Your task to perform on an android device: toggle priority inbox in the gmail app Image 0: 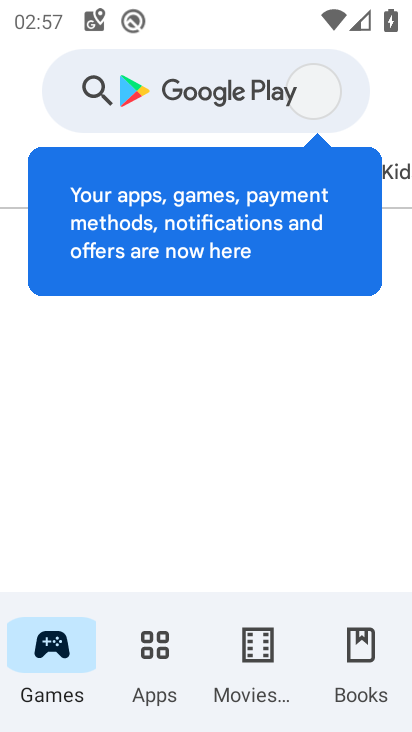
Step 0: press home button
Your task to perform on an android device: toggle priority inbox in the gmail app Image 1: 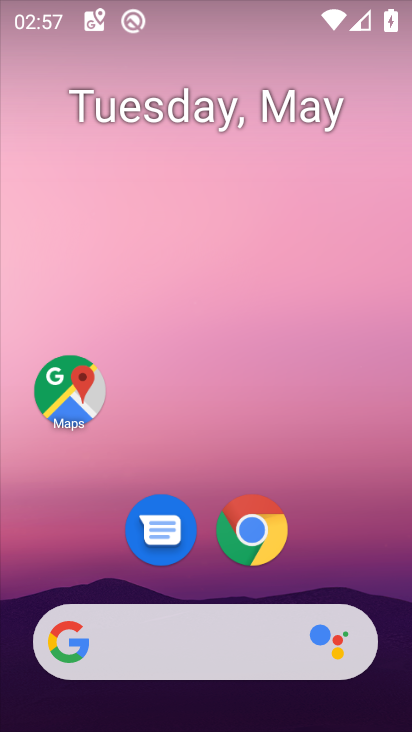
Step 1: drag from (96, 508) to (315, 161)
Your task to perform on an android device: toggle priority inbox in the gmail app Image 2: 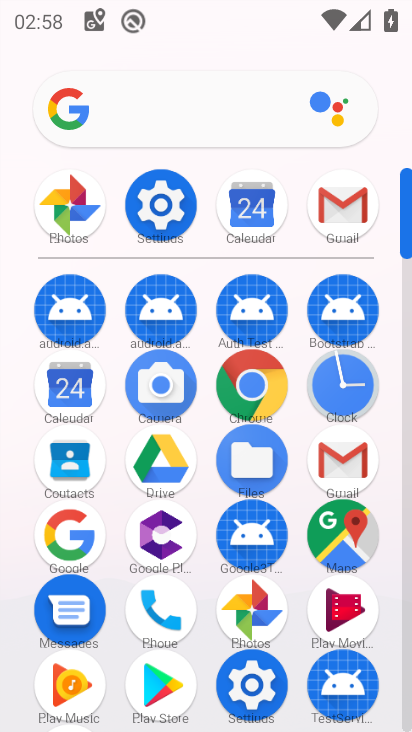
Step 2: click (301, 443)
Your task to perform on an android device: toggle priority inbox in the gmail app Image 3: 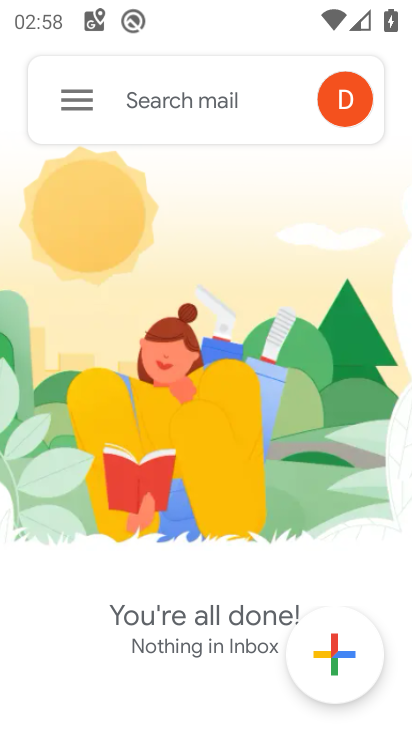
Step 3: click (51, 113)
Your task to perform on an android device: toggle priority inbox in the gmail app Image 4: 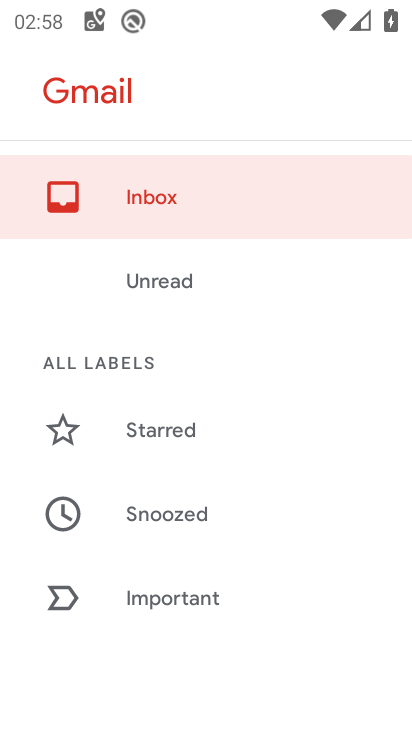
Step 4: drag from (38, 642) to (254, 134)
Your task to perform on an android device: toggle priority inbox in the gmail app Image 5: 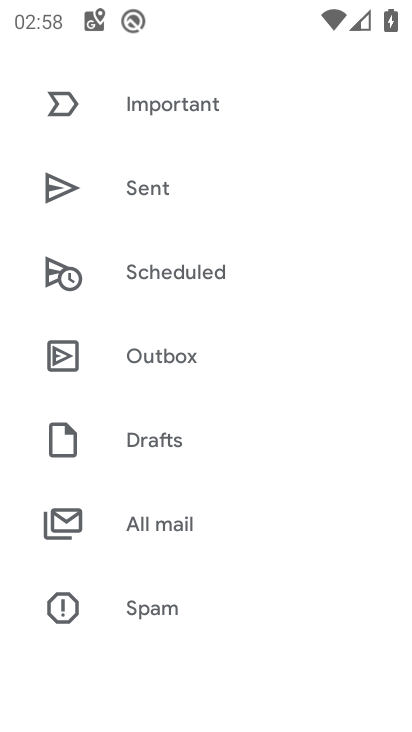
Step 5: drag from (13, 544) to (309, 102)
Your task to perform on an android device: toggle priority inbox in the gmail app Image 6: 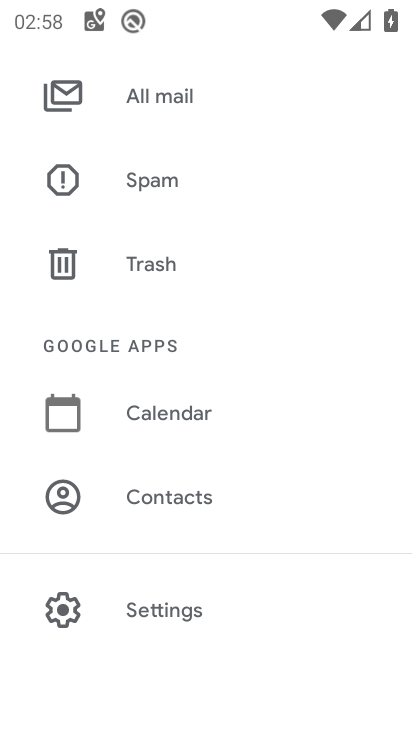
Step 6: drag from (51, 566) to (262, 223)
Your task to perform on an android device: toggle priority inbox in the gmail app Image 7: 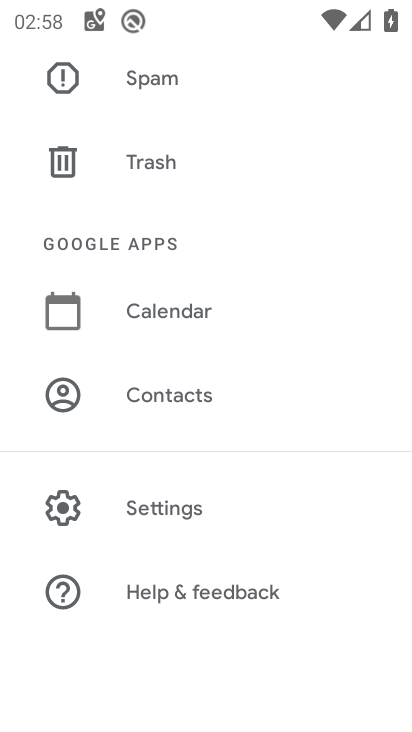
Step 7: click (142, 502)
Your task to perform on an android device: toggle priority inbox in the gmail app Image 8: 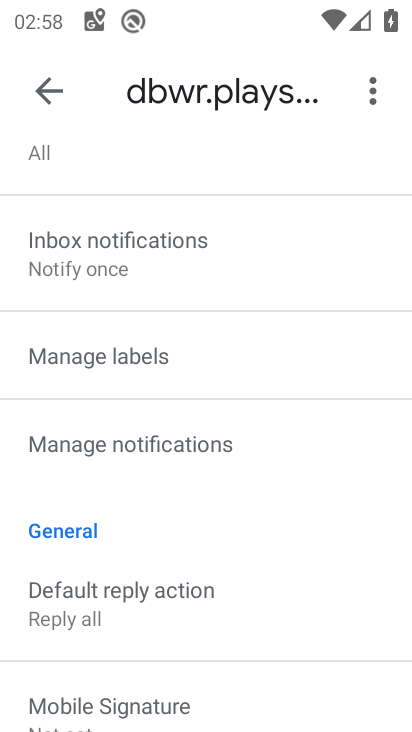
Step 8: drag from (74, 474) to (235, 227)
Your task to perform on an android device: toggle priority inbox in the gmail app Image 9: 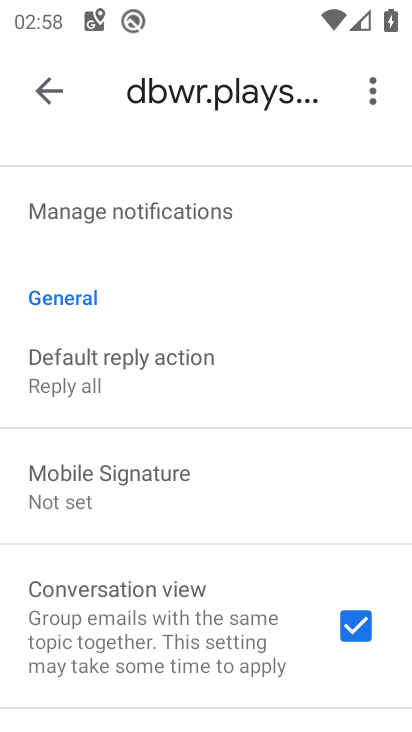
Step 9: drag from (216, 175) to (141, 631)
Your task to perform on an android device: toggle priority inbox in the gmail app Image 10: 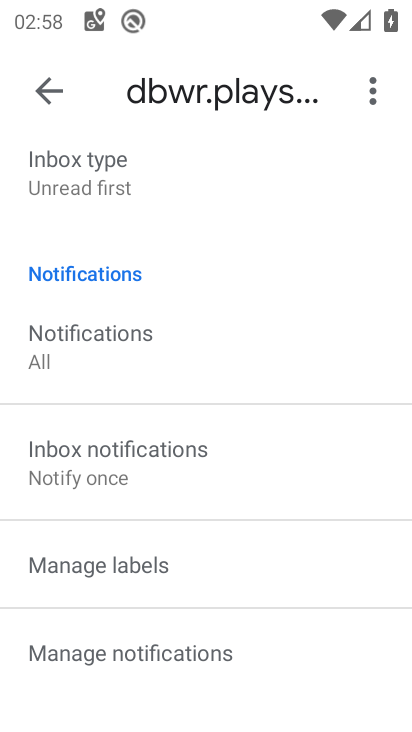
Step 10: drag from (146, 242) to (91, 654)
Your task to perform on an android device: toggle priority inbox in the gmail app Image 11: 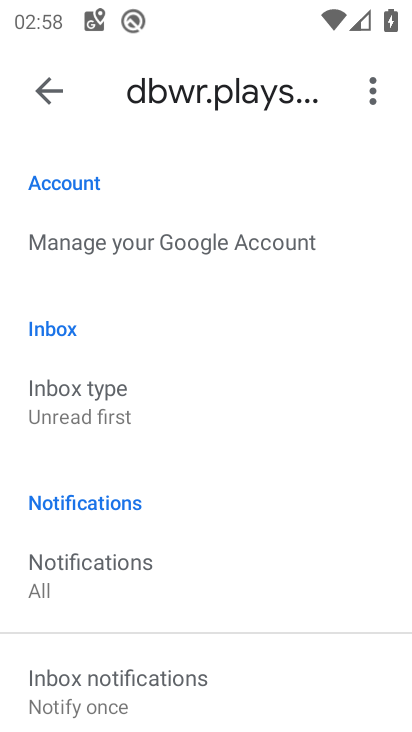
Step 11: drag from (176, 226) to (89, 684)
Your task to perform on an android device: toggle priority inbox in the gmail app Image 12: 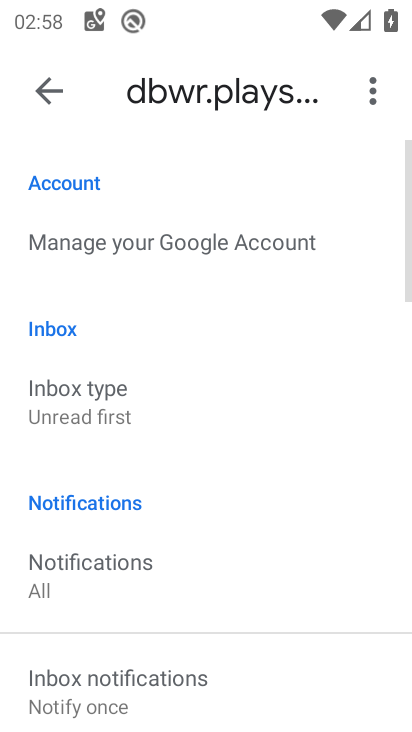
Step 12: click (111, 398)
Your task to perform on an android device: toggle priority inbox in the gmail app Image 13: 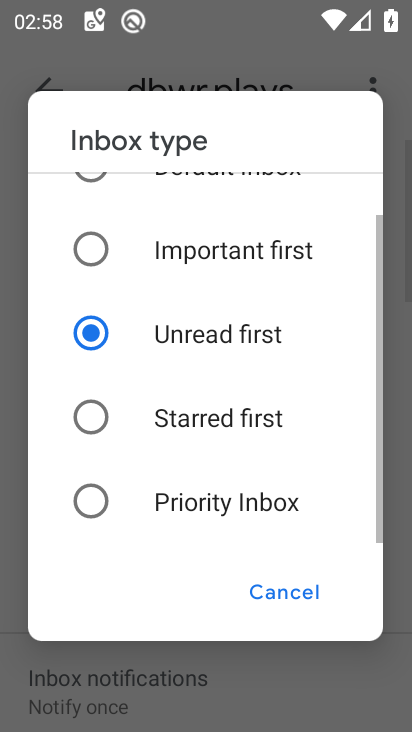
Step 13: drag from (106, 487) to (213, 201)
Your task to perform on an android device: toggle priority inbox in the gmail app Image 14: 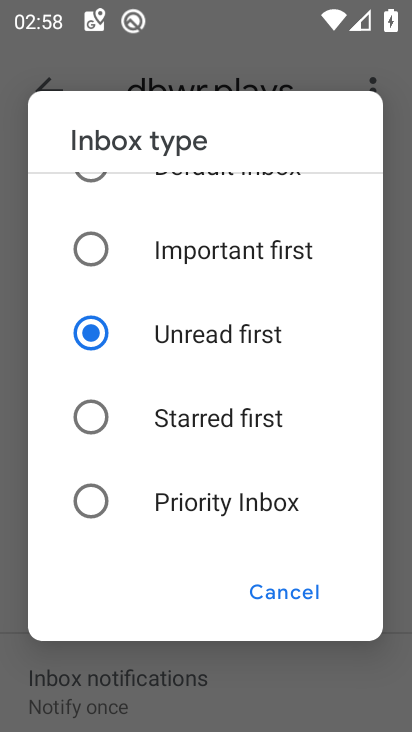
Step 14: click (156, 476)
Your task to perform on an android device: toggle priority inbox in the gmail app Image 15: 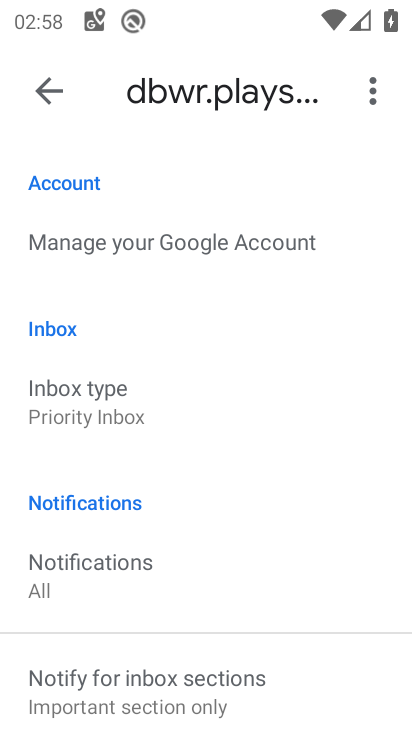
Step 15: task complete